Your task to perform on an android device: Search for vegetarian restaurants on Maps Image 0: 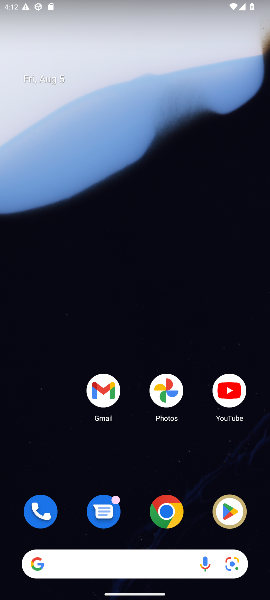
Step 0: drag from (137, 551) to (171, 77)
Your task to perform on an android device: Search for vegetarian restaurants on Maps Image 1: 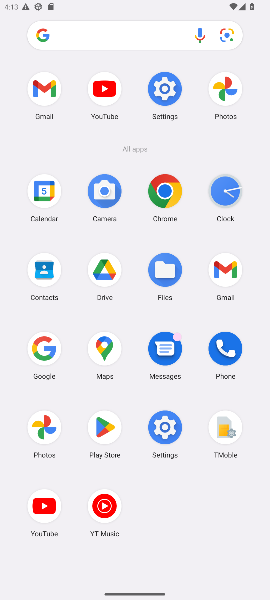
Step 1: click (109, 349)
Your task to perform on an android device: Search for vegetarian restaurants on Maps Image 2: 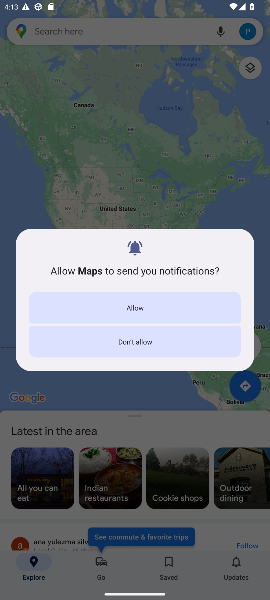
Step 2: click (152, 312)
Your task to perform on an android device: Search for vegetarian restaurants on Maps Image 3: 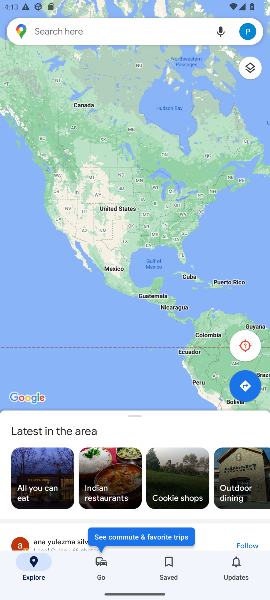
Step 3: click (152, 36)
Your task to perform on an android device: Search for vegetarian restaurants on Maps Image 4: 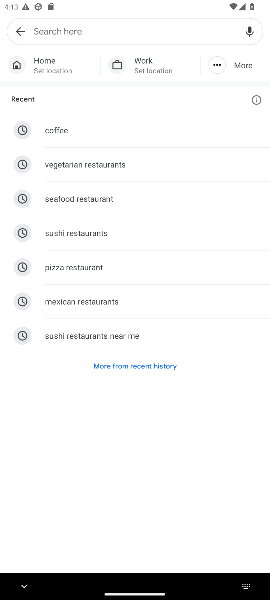
Step 4: click (90, 162)
Your task to perform on an android device: Search for vegetarian restaurants on Maps Image 5: 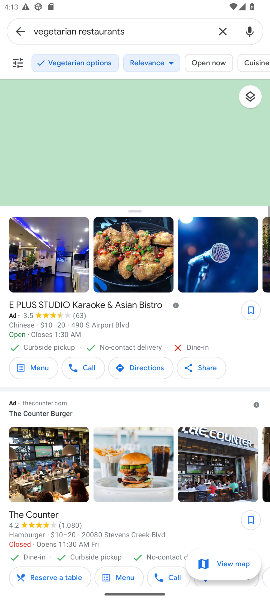
Step 5: task complete